Your task to perform on an android device: Open the calendar and show me this week's events? Image 0: 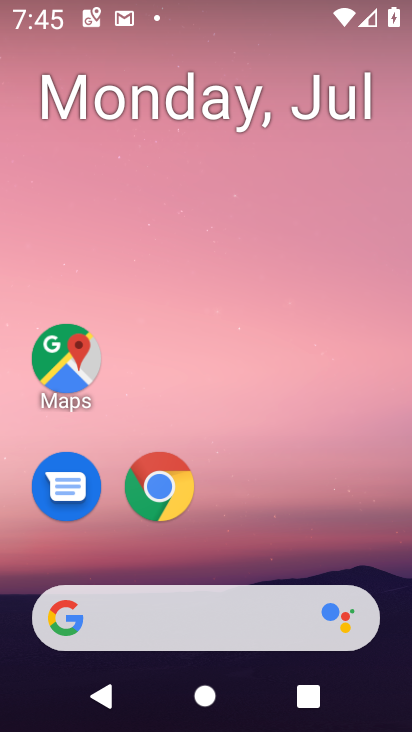
Step 0: drag from (374, 553) to (358, 165)
Your task to perform on an android device: Open the calendar and show me this week's events? Image 1: 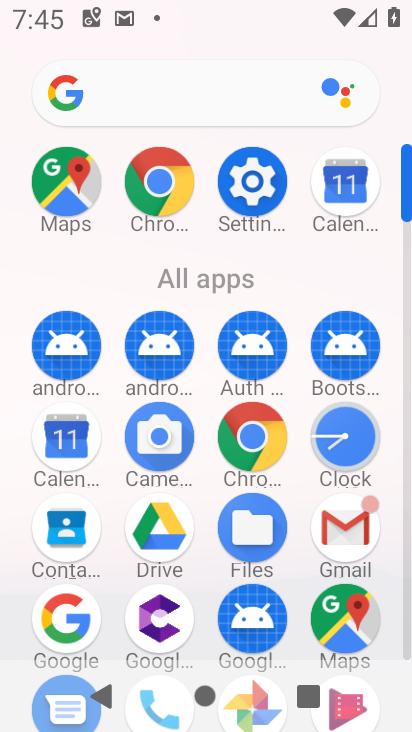
Step 1: click (351, 210)
Your task to perform on an android device: Open the calendar and show me this week's events? Image 2: 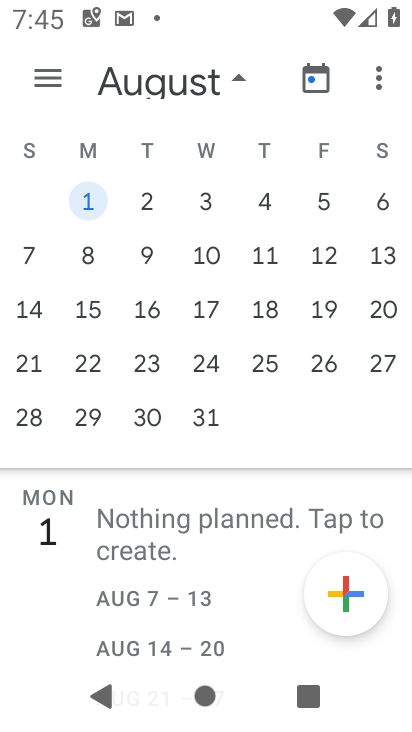
Step 2: drag from (234, 480) to (214, 637)
Your task to perform on an android device: Open the calendar and show me this week's events? Image 3: 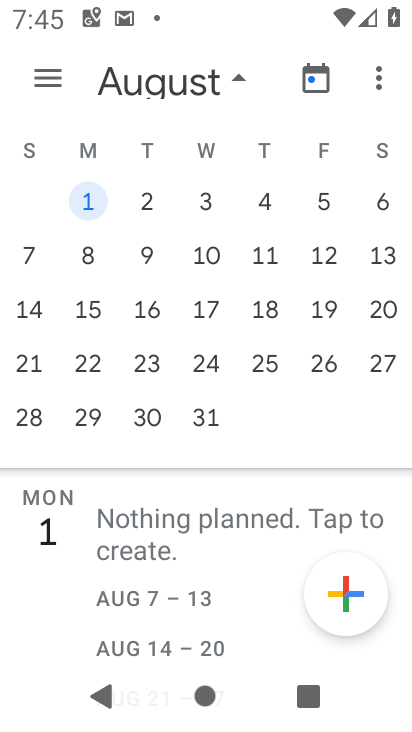
Step 3: drag from (152, 555) to (188, 143)
Your task to perform on an android device: Open the calendar and show me this week's events? Image 4: 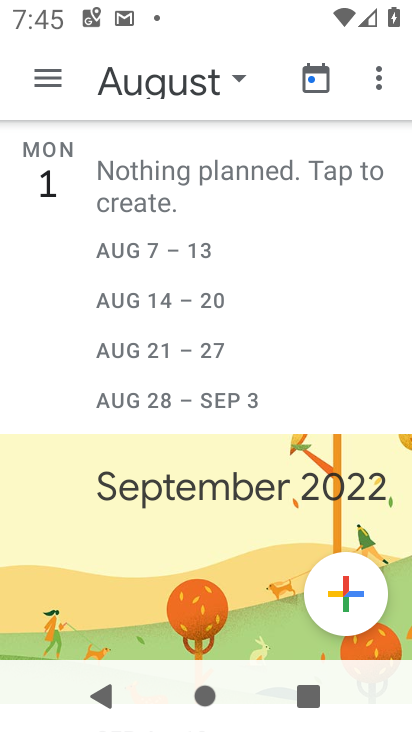
Step 4: drag from (251, 216) to (265, 479)
Your task to perform on an android device: Open the calendar and show me this week's events? Image 5: 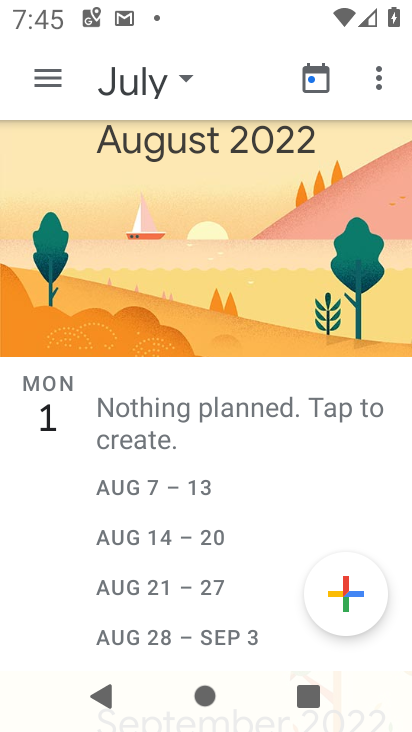
Step 5: drag from (242, 184) to (240, 454)
Your task to perform on an android device: Open the calendar and show me this week's events? Image 6: 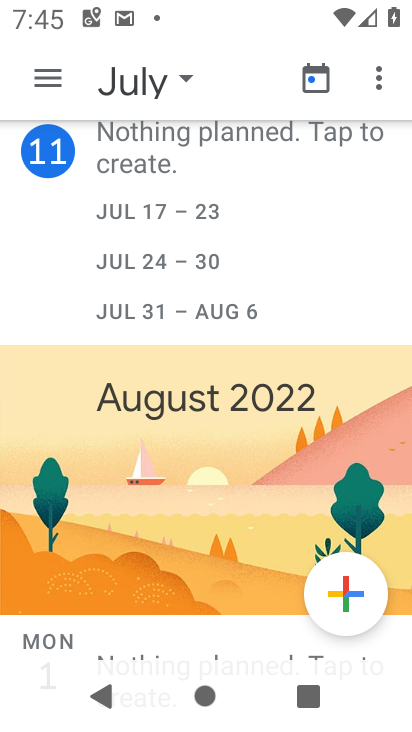
Step 6: drag from (253, 193) to (249, 340)
Your task to perform on an android device: Open the calendar and show me this week's events? Image 7: 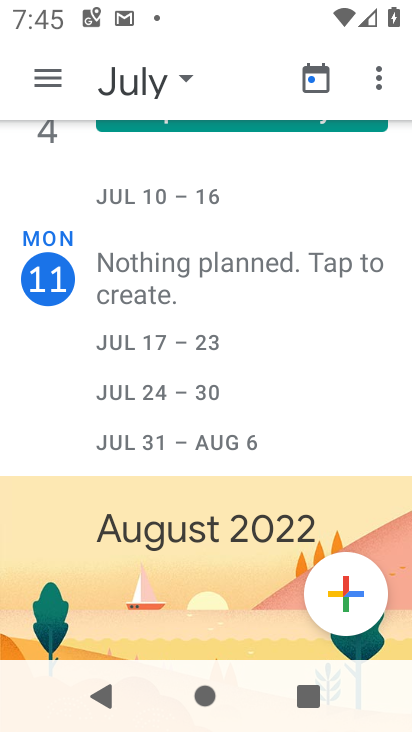
Step 7: click (188, 66)
Your task to perform on an android device: Open the calendar and show me this week's events? Image 8: 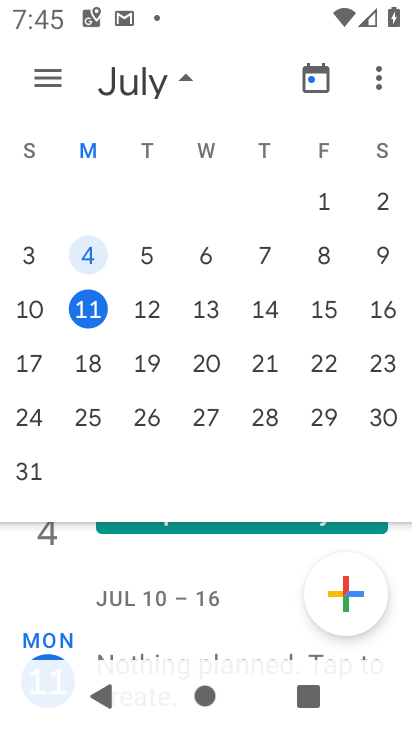
Step 8: click (148, 310)
Your task to perform on an android device: Open the calendar and show me this week's events? Image 9: 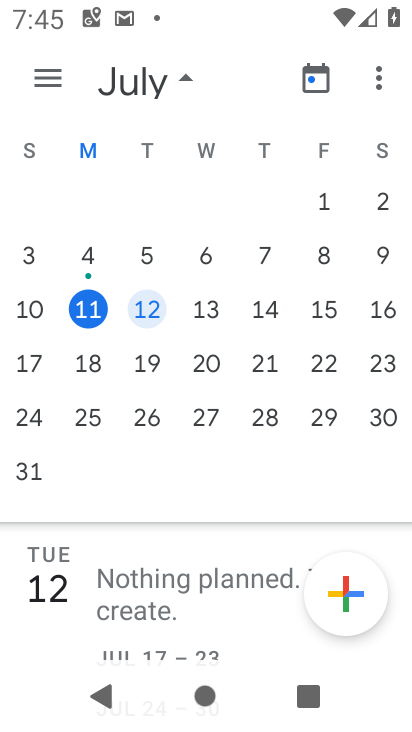
Step 9: task complete